Your task to perform on an android device: Open Google Maps Image 0: 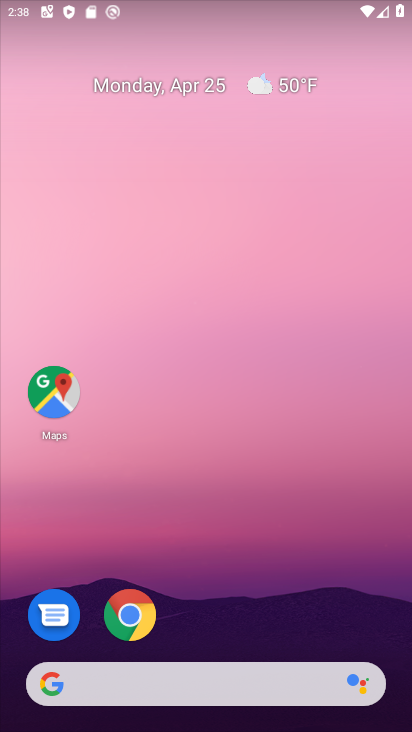
Step 0: drag from (187, 727) to (180, 171)
Your task to perform on an android device: Open Google Maps Image 1: 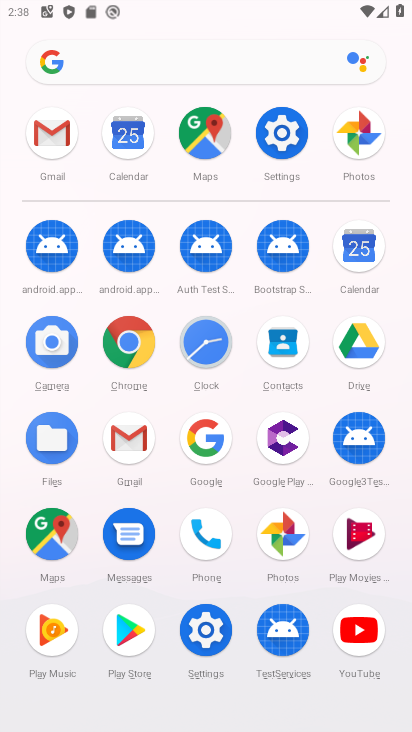
Step 1: click (48, 537)
Your task to perform on an android device: Open Google Maps Image 2: 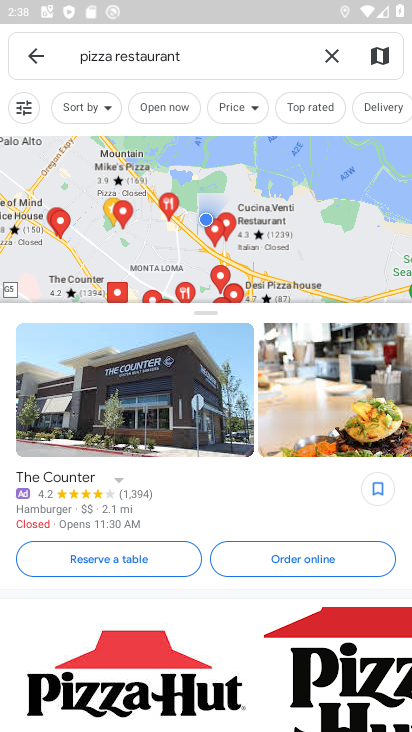
Step 2: task complete